Your task to perform on an android device: open sync settings in chrome Image 0: 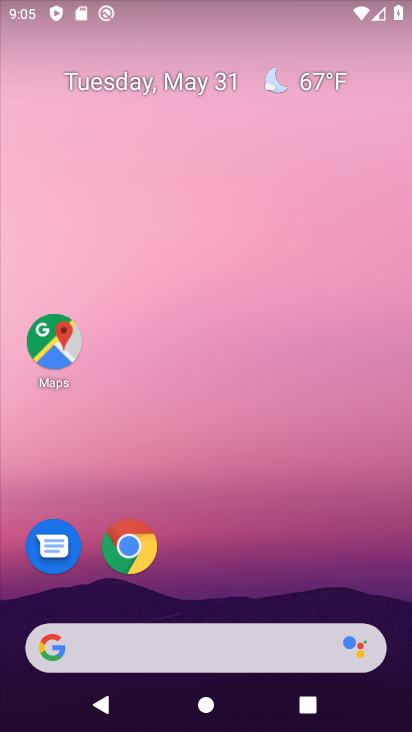
Step 0: drag from (188, 583) to (249, 0)
Your task to perform on an android device: open sync settings in chrome Image 1: 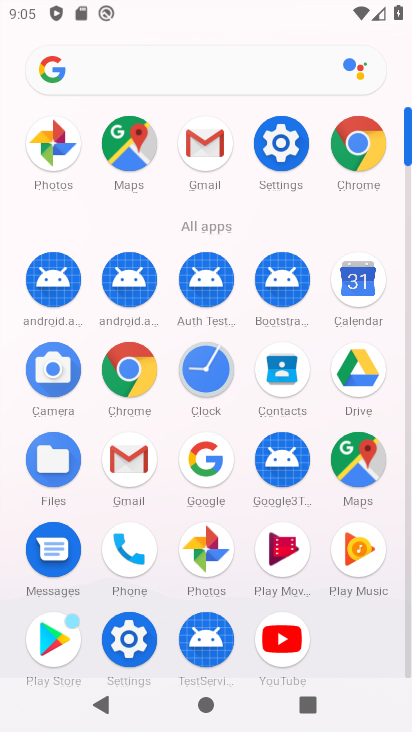
Step 1: click (127, 374)
Your task to perform on an android device: open sync settings in chrome Image 2: 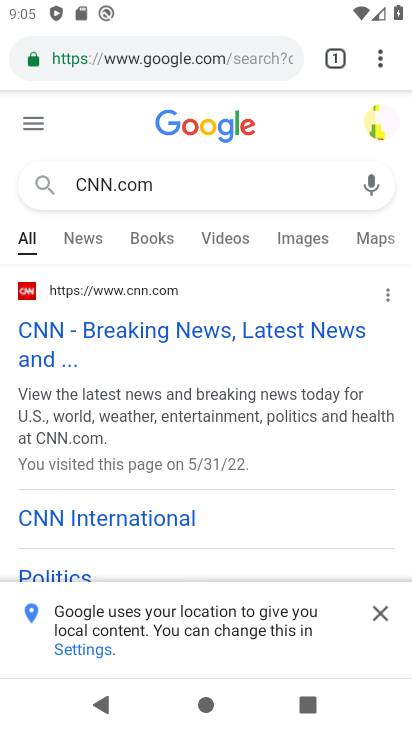
Step 2: click (385, 63)
Your task to perform on an android device: open sync settings in chrome Image 3: 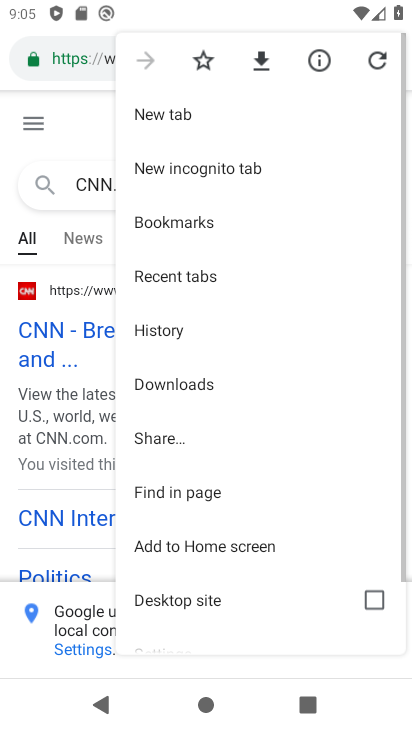
Step 3: drag from (193, 618) to (205, 320)
Your task to perform on an android device: open sync settings in chrome Image 4: 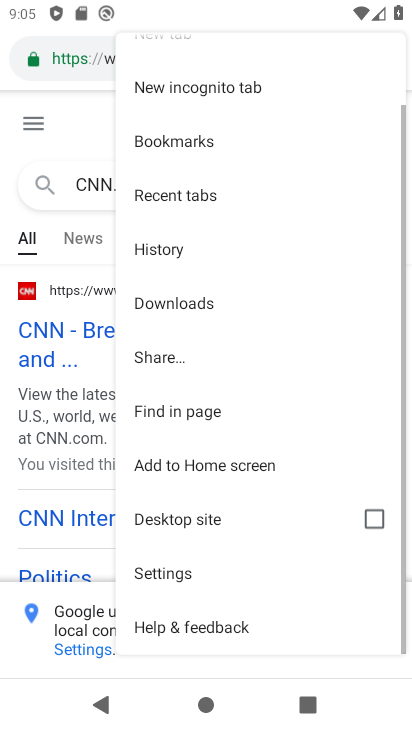
Step 4: click (165, 573)
Your task to perform on an android device: open sync settings in chrome Image 5: 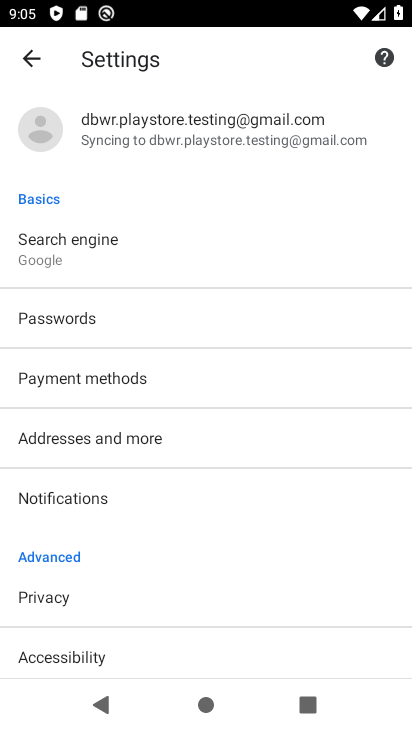
Step 5: click (194, 127)
Your task to perform on an android device: open sync settings in chrome Image 6: 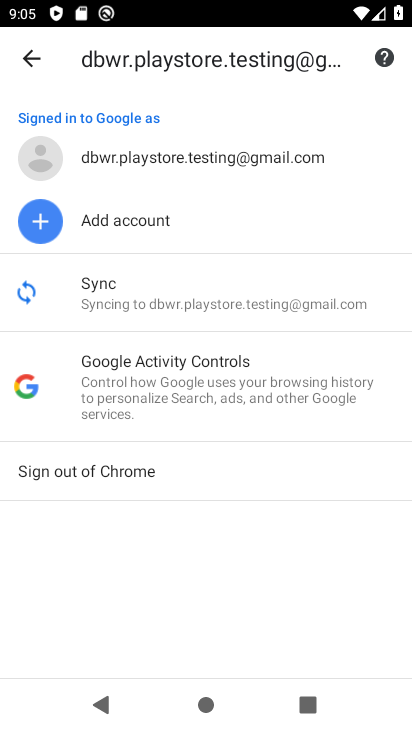
Step 6: click (101, 303)
Your task to perform on an android device: open sync settings in chrome Image 7: 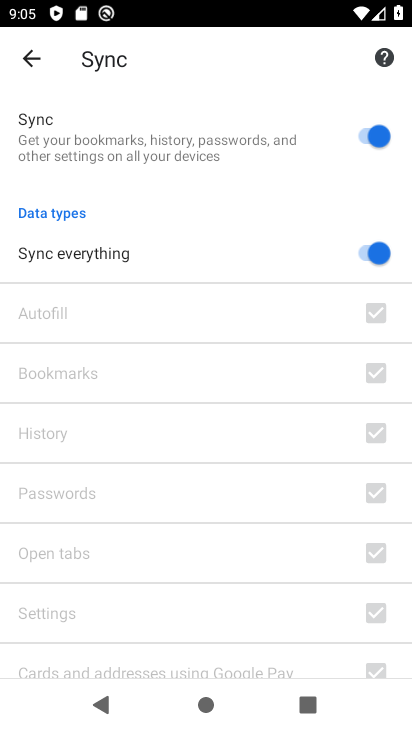
Step 7: task complete